Your task to perform on an android device: Find coffee shops on Maps Image 0: 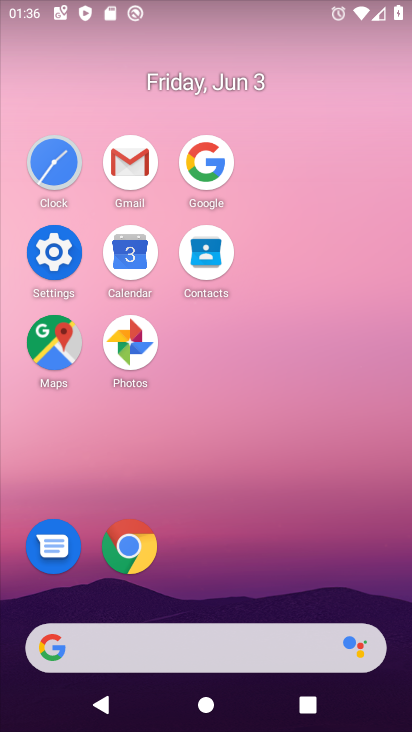
Step 0: click (59, 345)
Your task to perform on an android device: Find coffee shops on Maps Image 1: 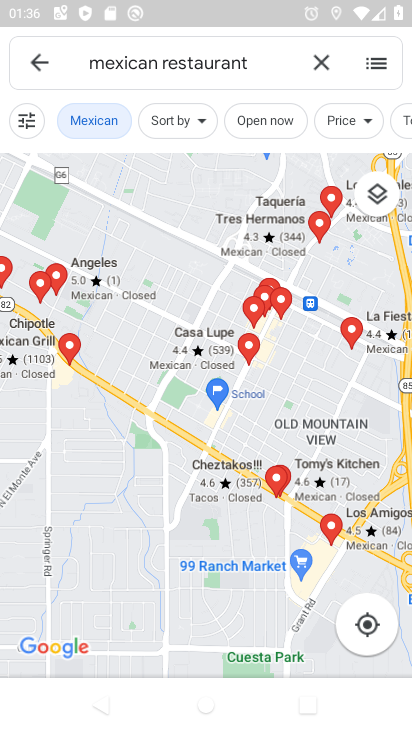
Step 1: click (287, 52)
Your task to perform on an android device: Find coffee shops on Maps Image 2: 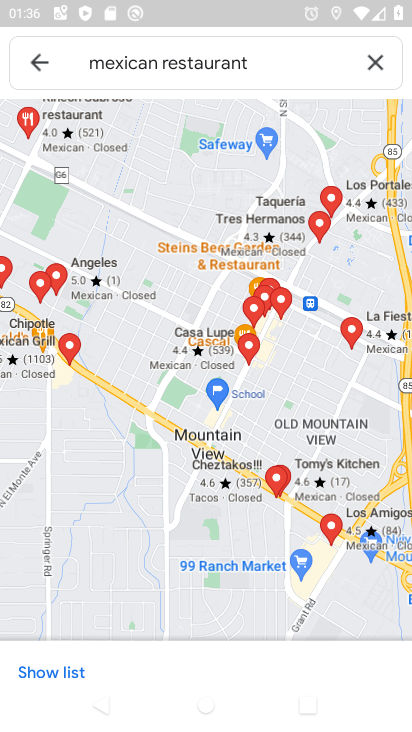
Step 2: click (319, 68)
Your task to perform on an android device: Find coffee shops on Maps Image 3: 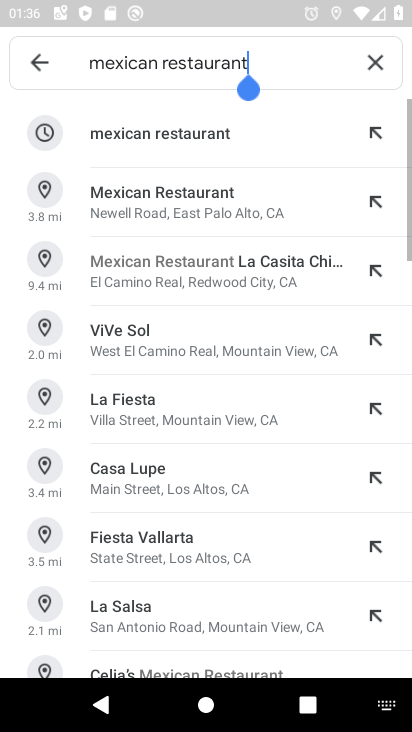
Step 3: click (374, 59)
Your task to perform on an android device: Find coffee shops on Maps Image 4: 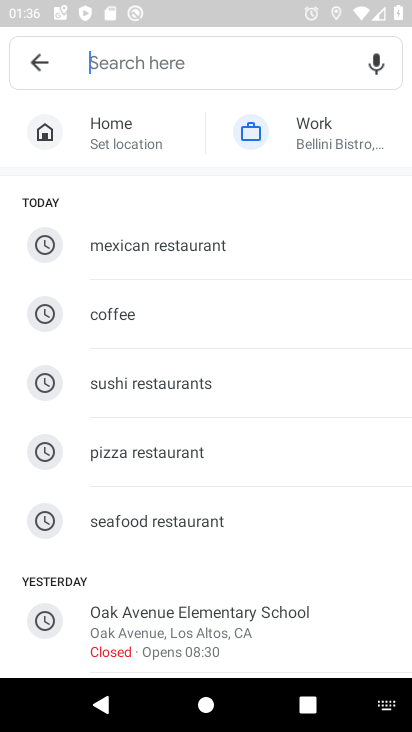
Step 4: type "coffee shops"
Your task to perform on an android device: Find coffee shops on Maps Image 5: 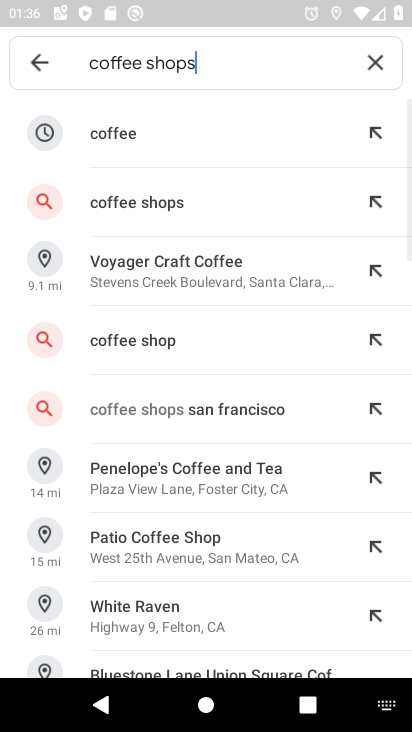
Step 5: task complete